Your task to perform on an android device: turn on bluetooth scan Image 0: 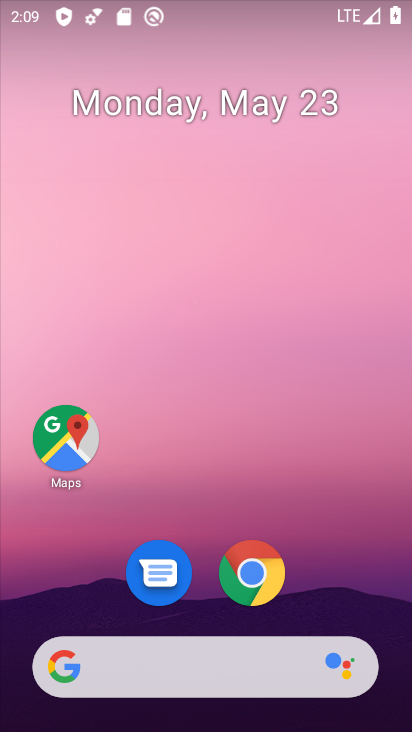
Step 0: drag from (341, 542) to (260, 180)
Your task to perform on an android device: turn on bluetooth scan Image 1: 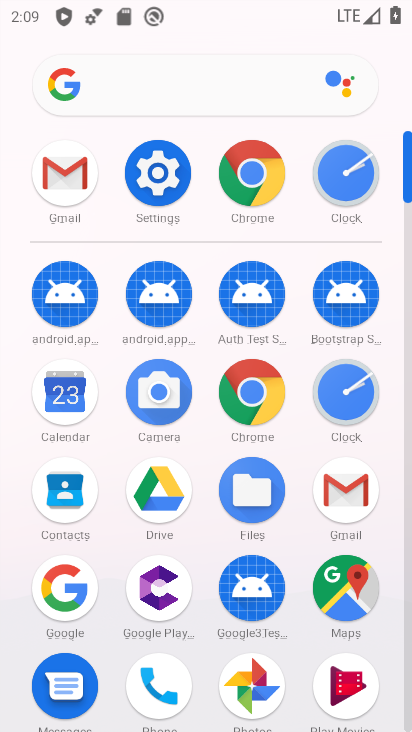
Step 1: click (166, 175)
Your task to perform on an android device: turn on bluetooth scan Image 2: 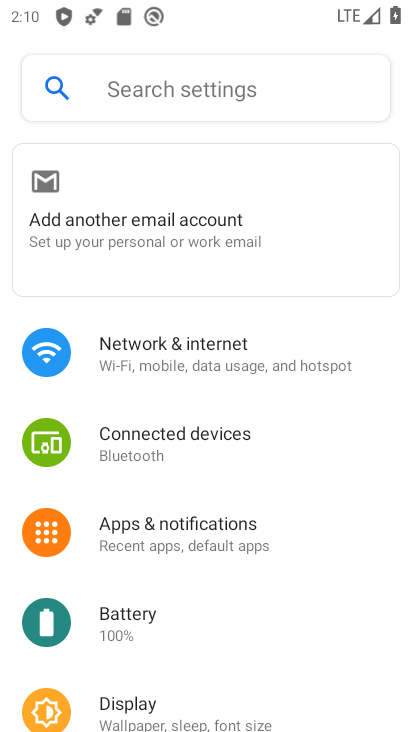
Step 2: drag from (186, 456) to (203, 221)
Your task to perform on an android device: turn on bluetooth scan Image 3: 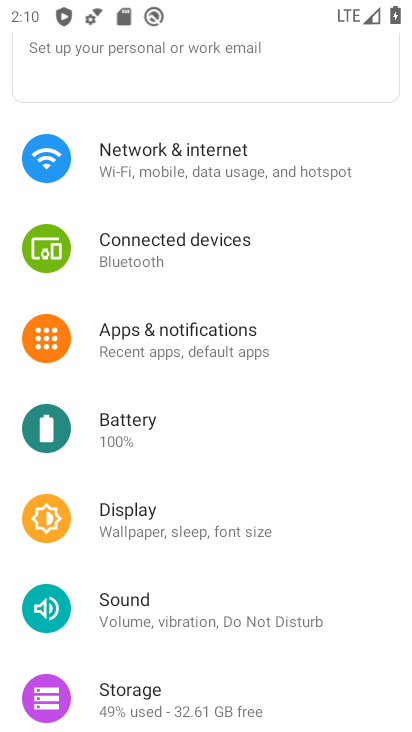
Step 3: drag from (234, 322) to (259, 173)
Your task to perform on an android device: turn on bluetooth scan Image 4: 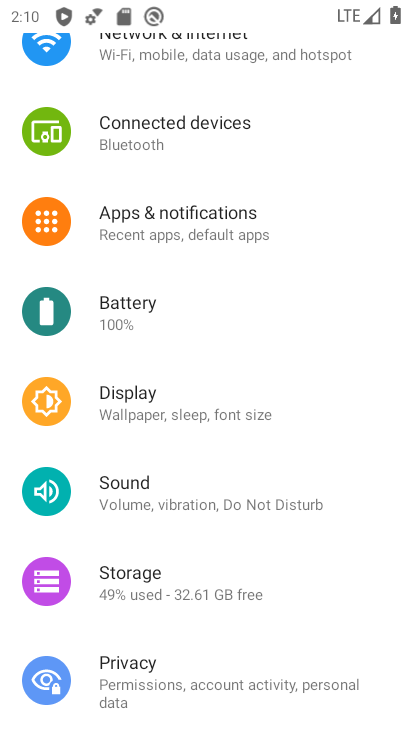
Step 4: drag from (192, 650) to (271, 264)
Your task to perform on an android device: turn on bluetooth scan Image 5: 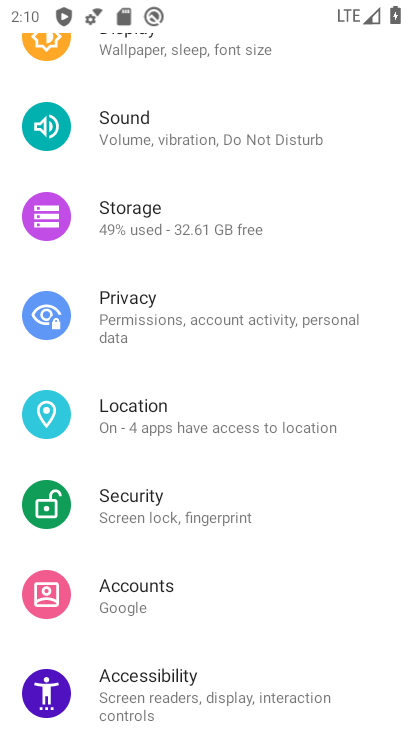
Step 5: click (214, 428)
Your task to perform on an android device: turn on bluetooth scan Image 6: 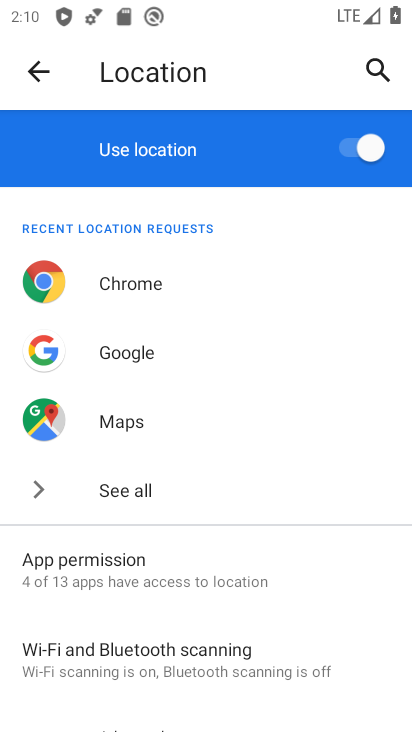
Step 6: click (123, 659)
Your task to perform on an android device: turn on bluetooth scan Image 7: 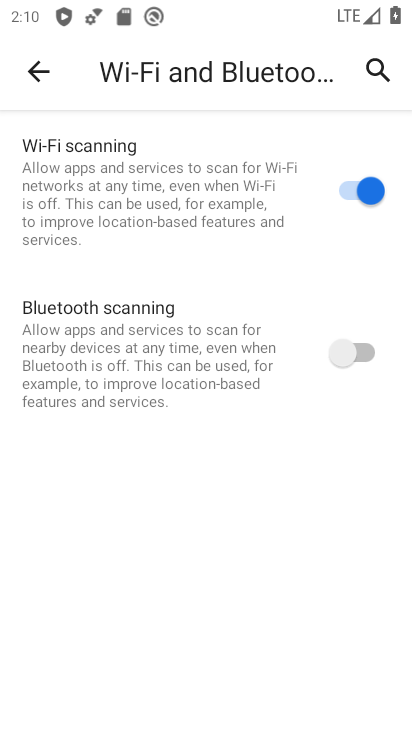
Step 7: click (360, 358)
Your task to perform on an android device: turn on bluetooth scan Image 8: 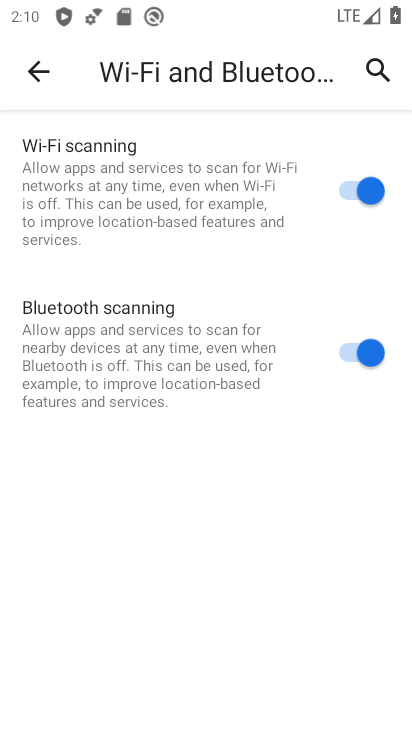
Step 8: task complete